Your task to perform on an android device: change timer sound Image 0: 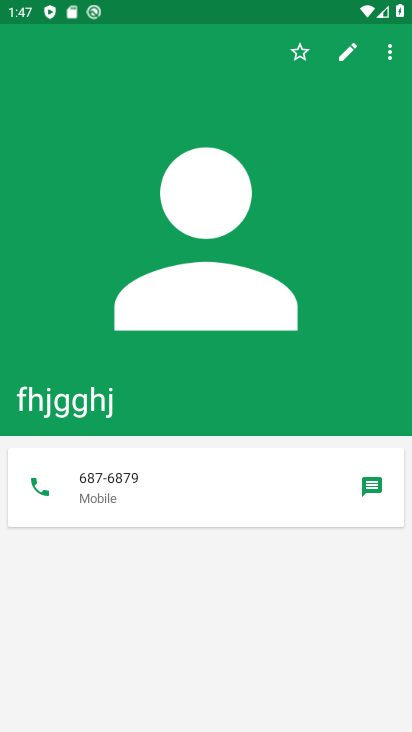
Step 0: press home button
Your task to perform on an android device: change timer sound Image 1: 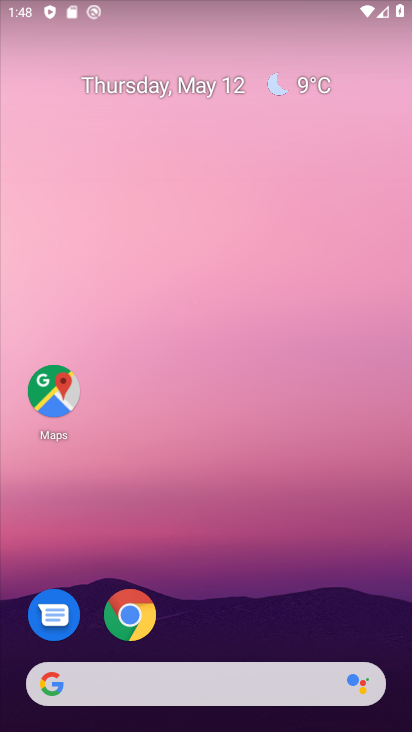
Step 1: drag from (189, 695) to (259, 54)
Your task to perform on an android device: change timer sound Image 2: 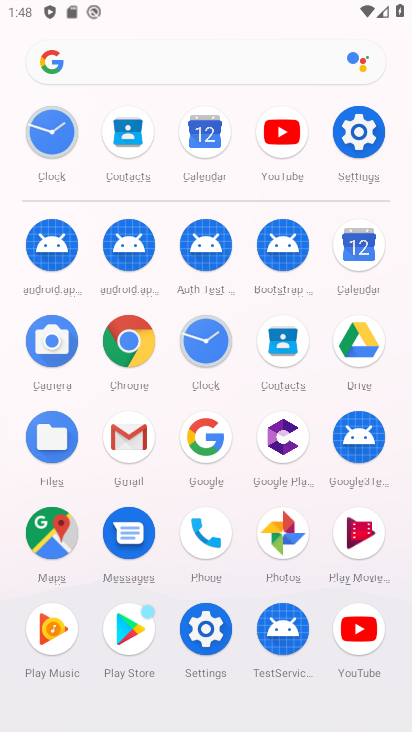
Step 2: click (213, 341)
Your task to perform on an android device: change timer sound Image 3: 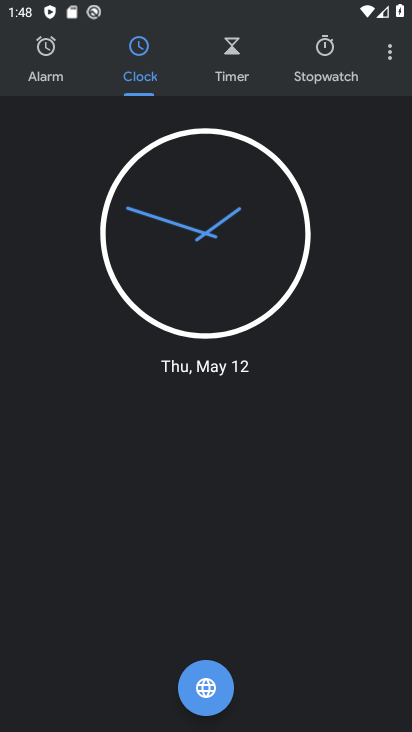
Step 3: click (395, 47)
Your task to perform on an android device: change timer sound Image 4: 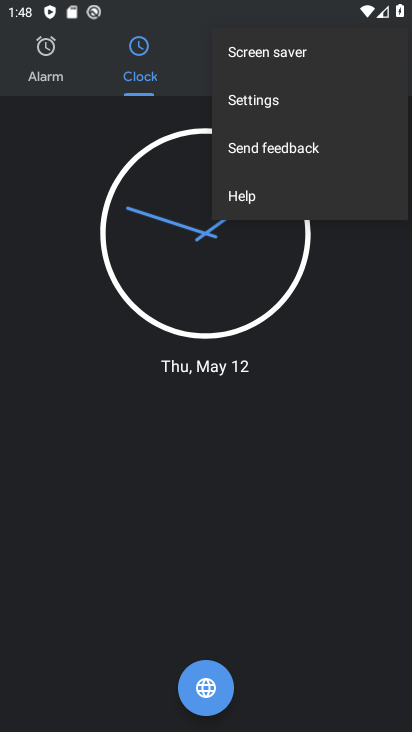
Step 4: click (261, 93)
Your task to perform on an android device: change timer sound Image 5: 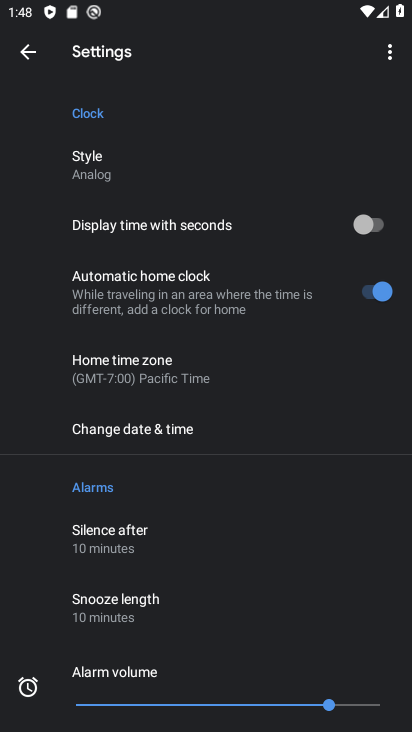
Step 5: drag from (177, 576) to (142, 0)
Your task to perform on an android device: change timer sound Image 6: 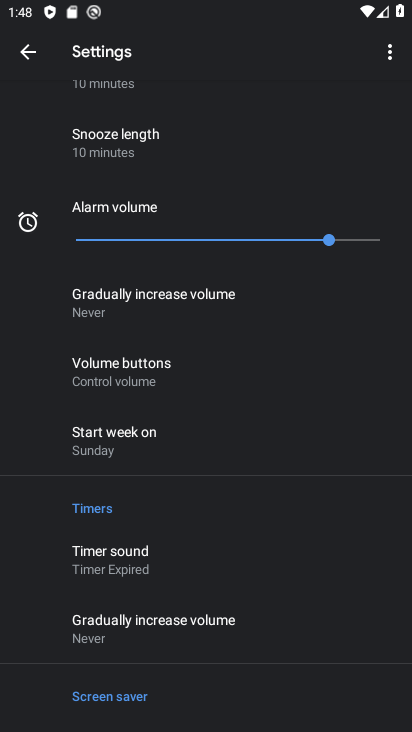
Step 6: click (151, 540)
Your task to perform on an android device: change timer sound Image 7: 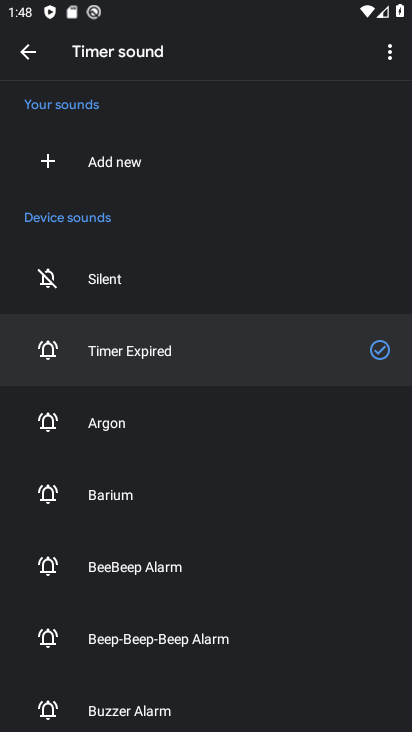
Step 7: click (209, 687)
Your task to perform on an android device: change timer sound Image 8: 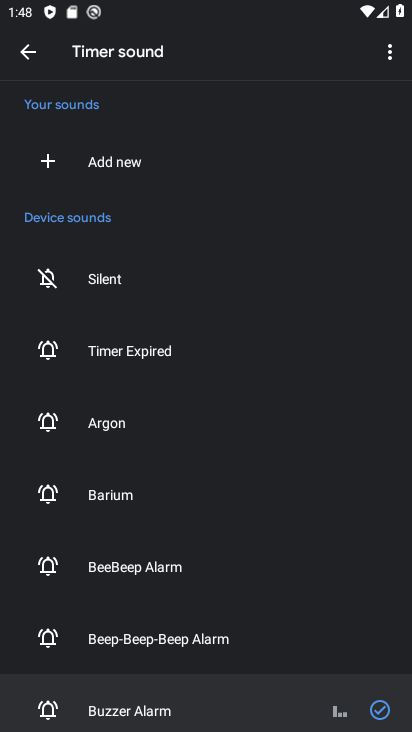
Step 8: task complete